Your task to perform on an android device: Search for Italian restaurants on Maps Image 0: 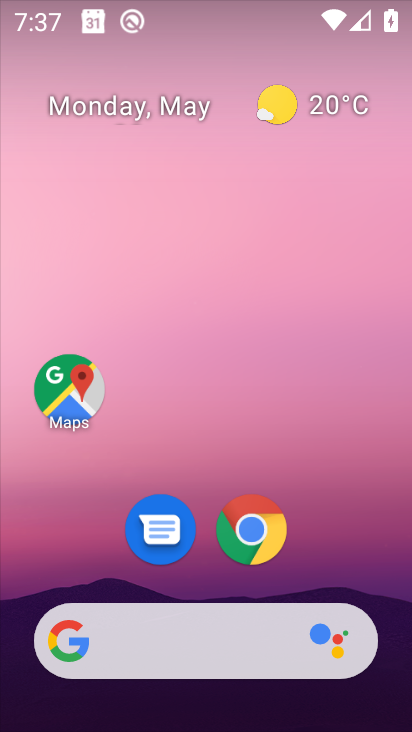
Step 0: click (72, 386)
Your task to perform on an android device: Search for Italian restaurants on Maps Image 1: 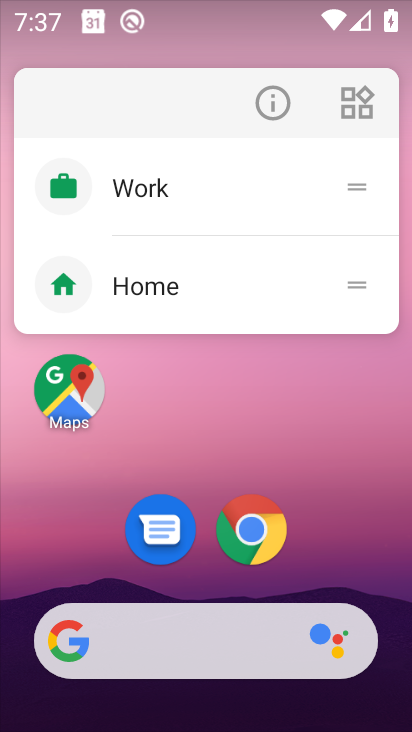
Step 1: click (72, 386)
Your task to perform on an android device: Search for Italian restaurants on Maps Image 2: 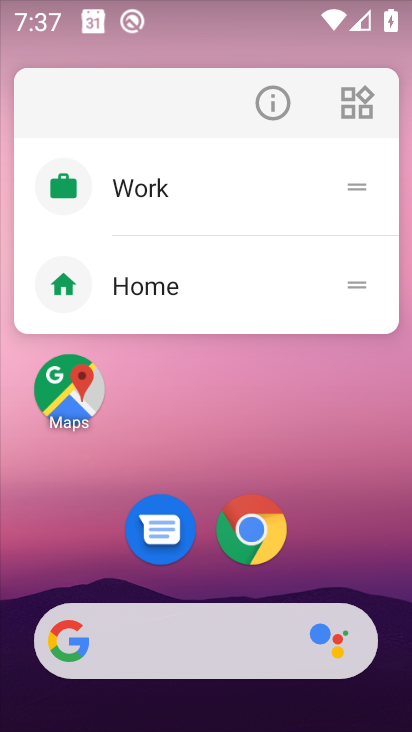
Step 2: click (69, 387)
Your task to perform on an android device: Search for Italian restaurants on Maps Image 3: 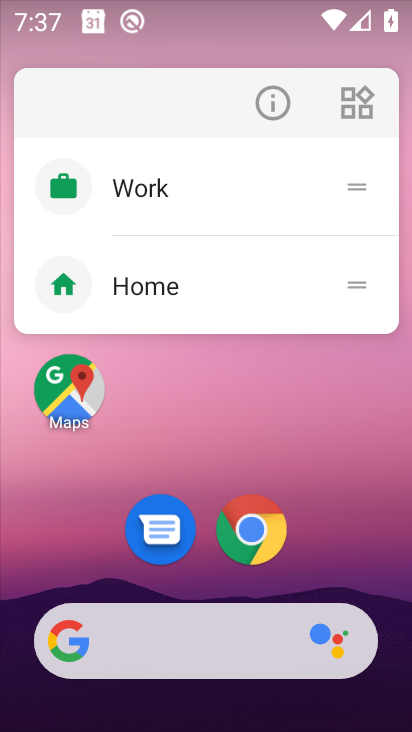
Step 3: click (69, 387)
Your task to perform on an android device: Search for Italian restaurants on Maps Image 4: 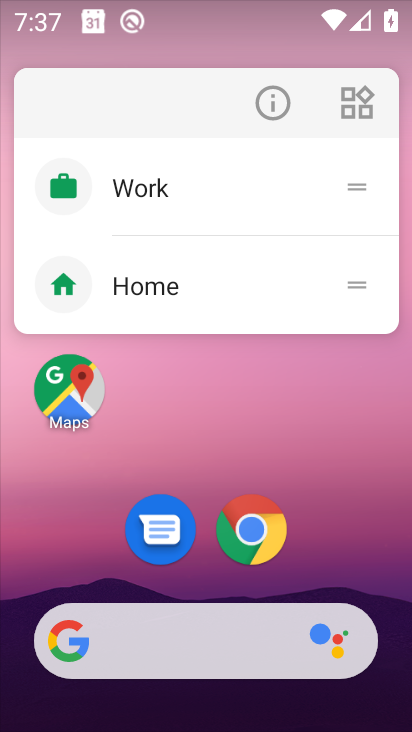
Step 4: click (55, 371)
Your task to perform on an android device: Search for Italian restaurants on Maps Image 5: 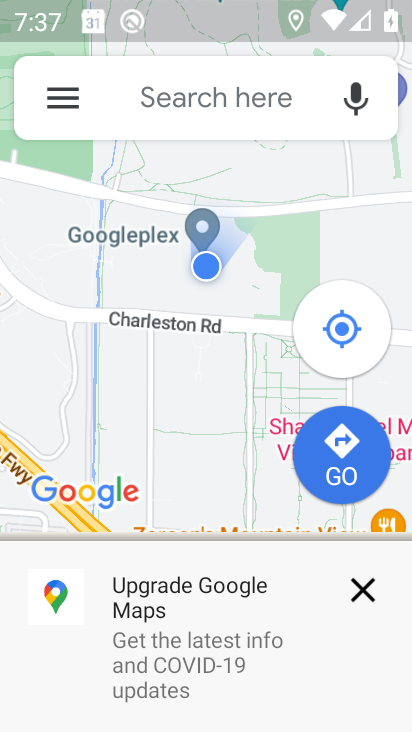
Step 5: click (358, 586)
Your task to perform on an android device: Search for Italian restaurants on Maps Image 6: 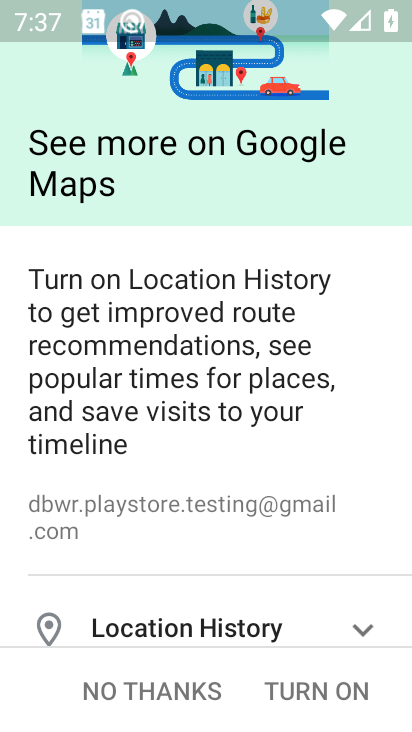
Step 6: press back button
Your task to perform on an android device: Search for Italian restaurants on Maps Image 7: 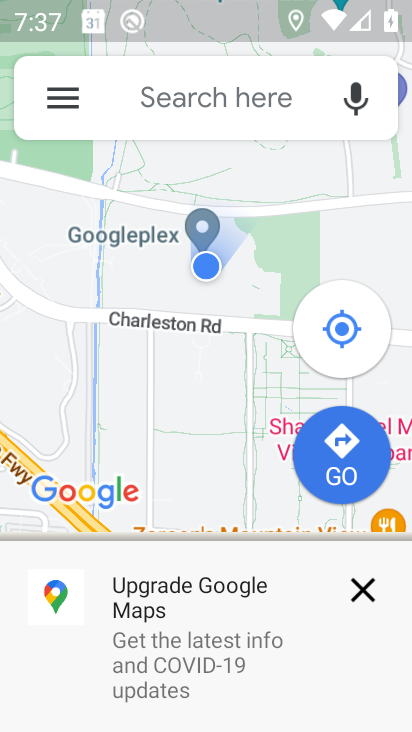
Step 7: click (158, 87)
Your task to perform on an android device: Search for Italian restaurants on Maps Image 8: 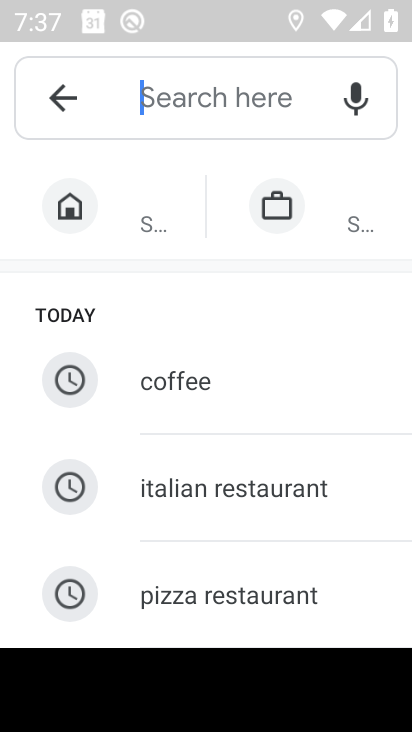
Step 8: click (213, 480)
Your task to perform on an android device: Search for Italian restaurants on Maps Image 9: 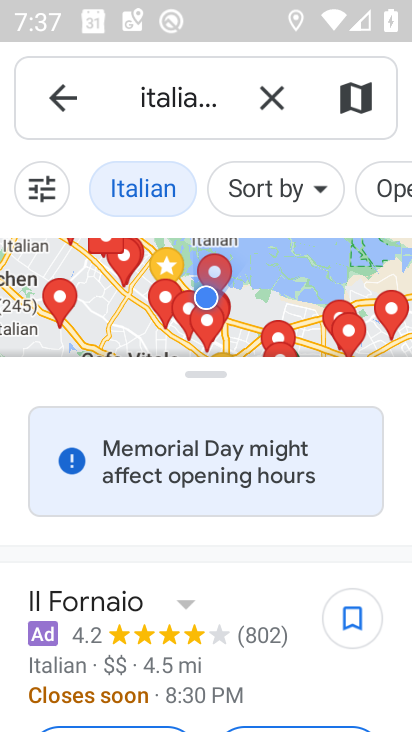
Step 9: task complete